Your task to perform on an android device: change text size in settings app Image 0: 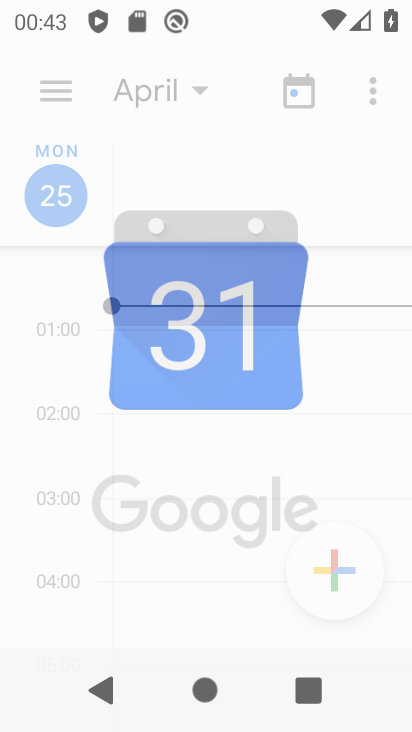
Step 0: press home button
Your task to perform on an android device: change text size in settings app Image 1: 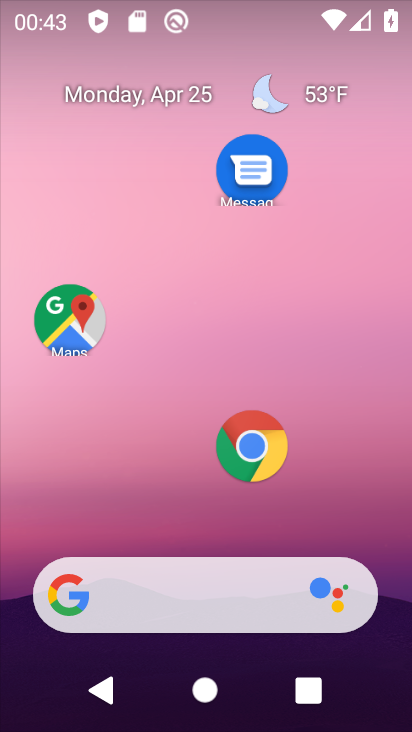
Step 1: drag from (142, 500) to (227, 44)
Your task to perform on an android device: change text size in settings app Image 2: 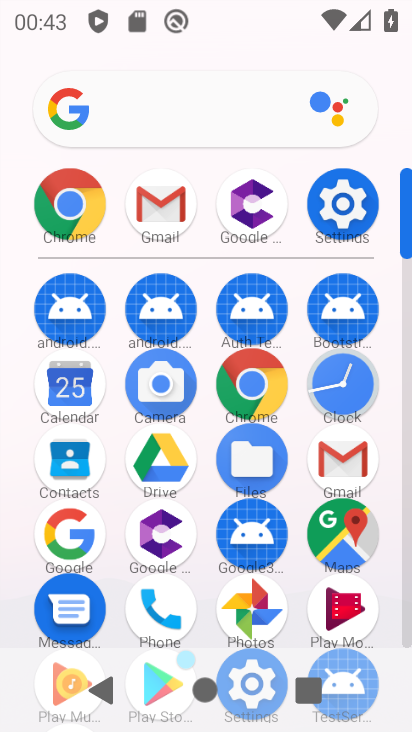
Step 2: click (363, 196)
Your task to perform on an android device: change text size in settings app Image 3: 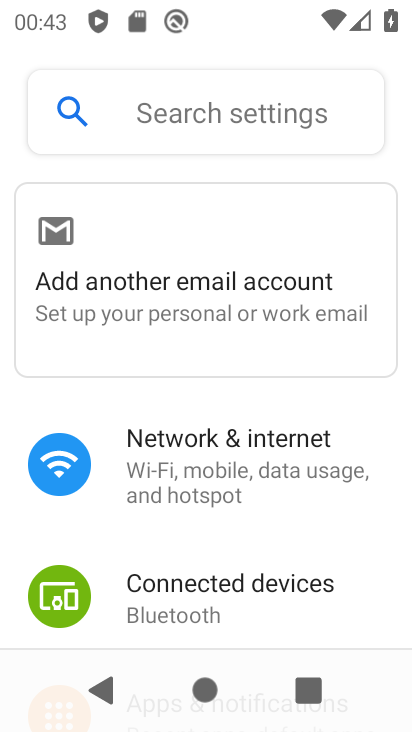
Step 3: drag from (204, 508) to (241, 44)
Your task to perform on an android device: change text size in settings app Image 4: 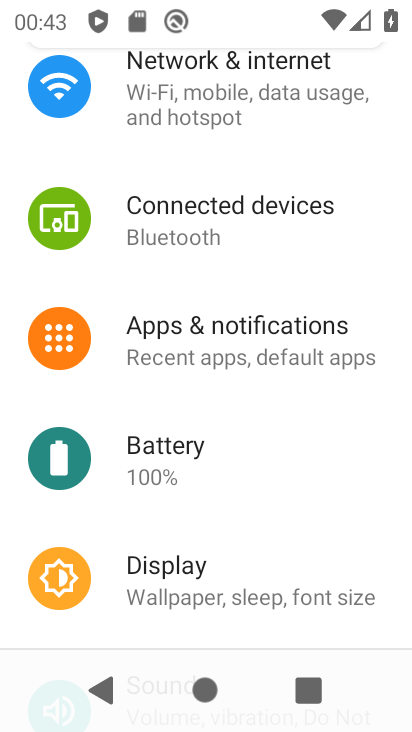
Step 4: click (184, 566)
Your task to perform on an android device: change text size in settings app Image 5: 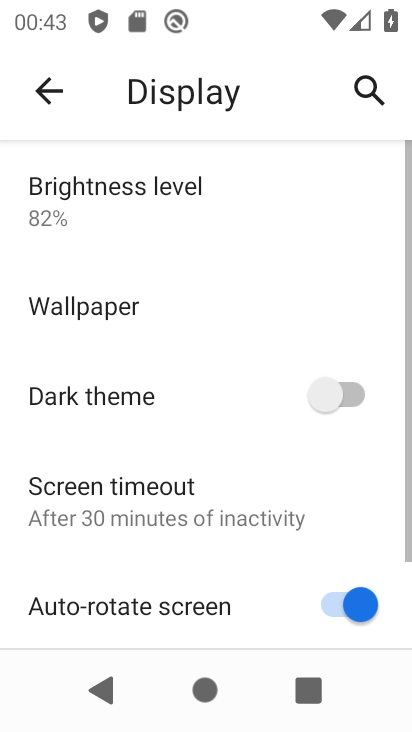
Step 5: drag from (146, 555) to (262, 41)
Your task to perform on an android device: change text size in settings app Image 6: 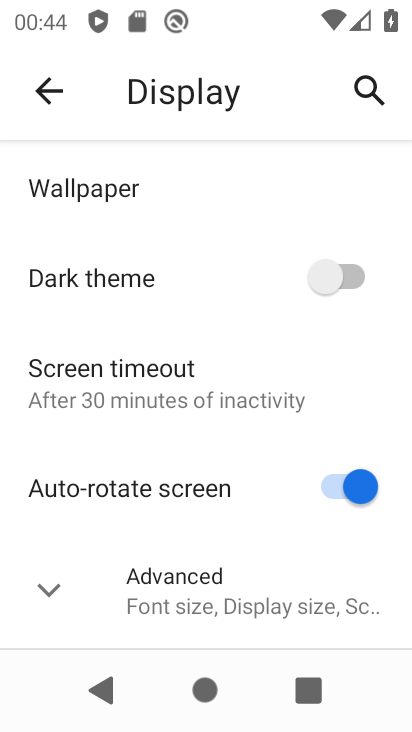
Step 6: click (196, 595)
Your task to perform on an android device: change text size in settings app Image 7: 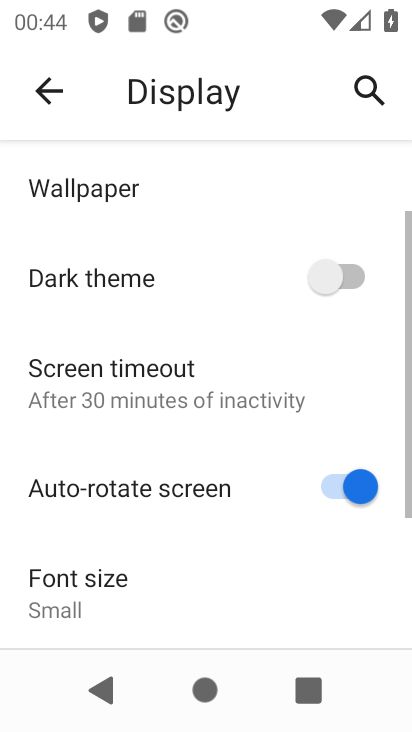
Step 7: drag from (154, 567) to (263, 72)
Your task to perform on an android device: change text size in settings app Image 8: 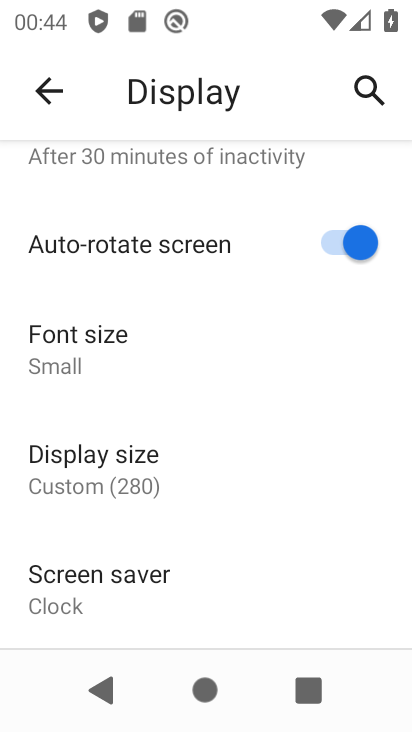
Step 8: click (92, 368)
Your task to perform on an android device: change text size in settings app Image 9: 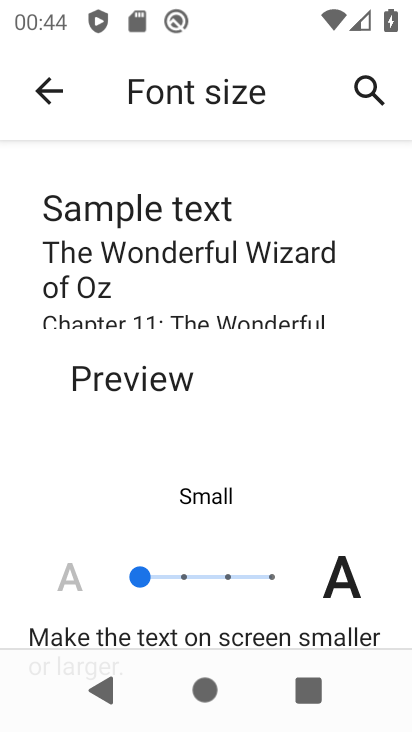
Step 9: click (184, 575)
Your task to perform on an android device: change text size in settings app Image 10: 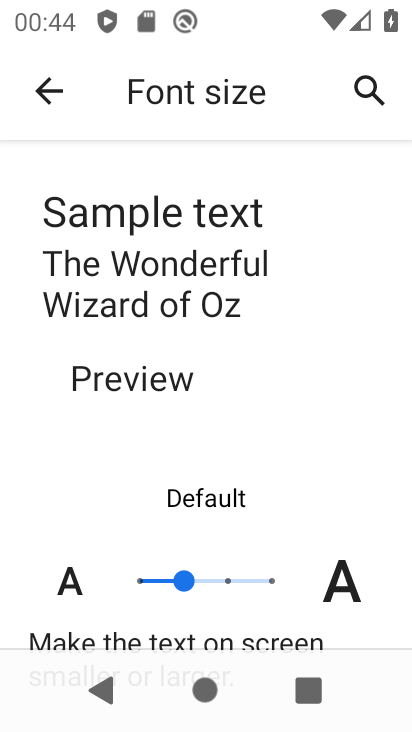
Step 10: task complete